Your task to perform on an android device: toggle notification dots Image 0: 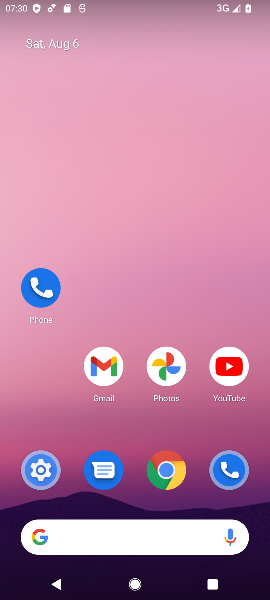
Step 0: click (136, 471)
Your task to perform on an android device: toggle notification dots Image 1: 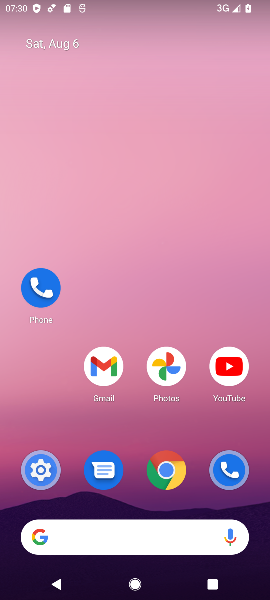
Step 1: drag from (214, 503) to (215, 221)
Your task to perform on an android device: toggle notification dots Image 2: 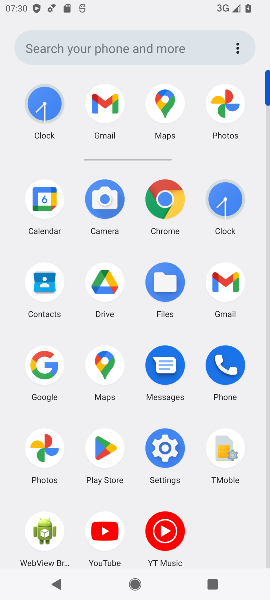
Step 2: click (152, 455)
Your task to perform on an android device: toggle notification dots Image 3: 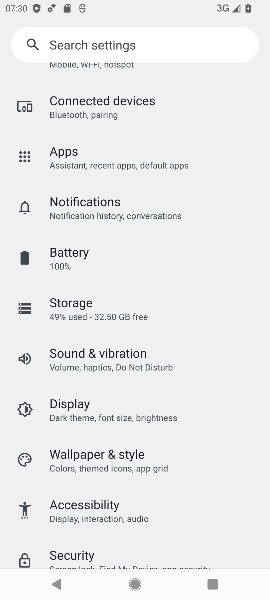
Step 3: click (146, 210)
Your task to perform on an android device: toggle notification dots Image 4: 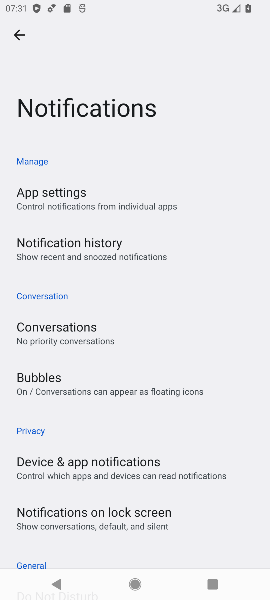
Step 4: drag from (163, 542) to (141, 137)
Your task to perform on an android device: toggle notification dots Image 5: 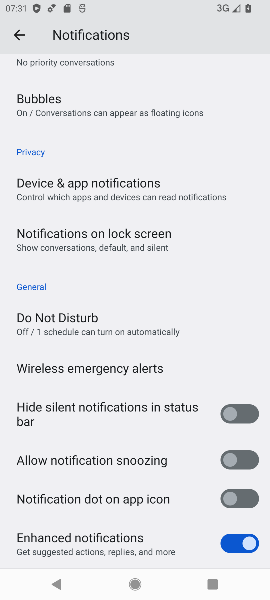
Step 5: click (72, 498)
Your task to perform on an android device: toggle notification dots Image 6: 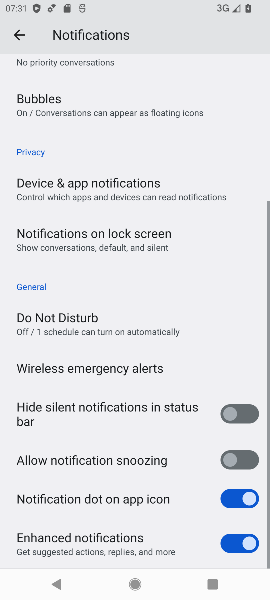
Step 6: task complete